Your task to perform on an android device: Go to accessibility settings Image 0: 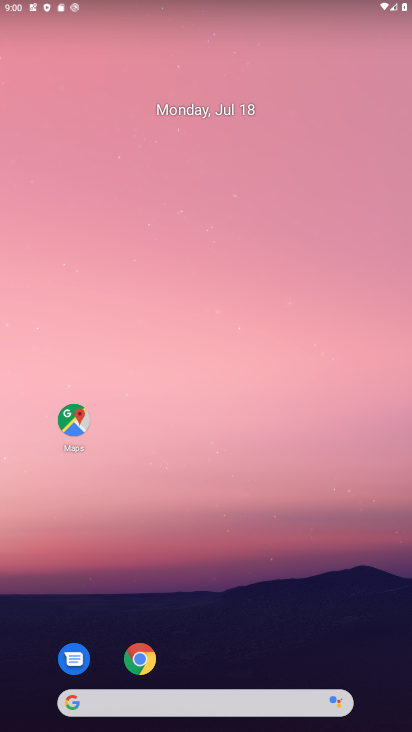
Step 0: drag from (199, 681) to (227, 166)
Your task to perform on an android device: Go to accessibility settings Image 1: 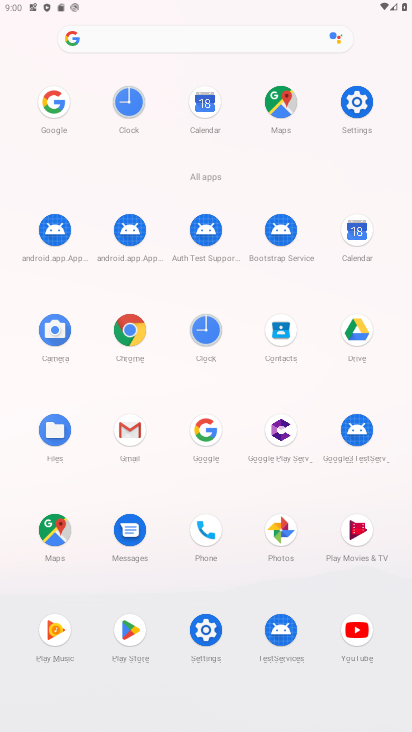
Step 1: click (355, 108)
Your task to perform on an android device: Go to accessibility settings Image 2: 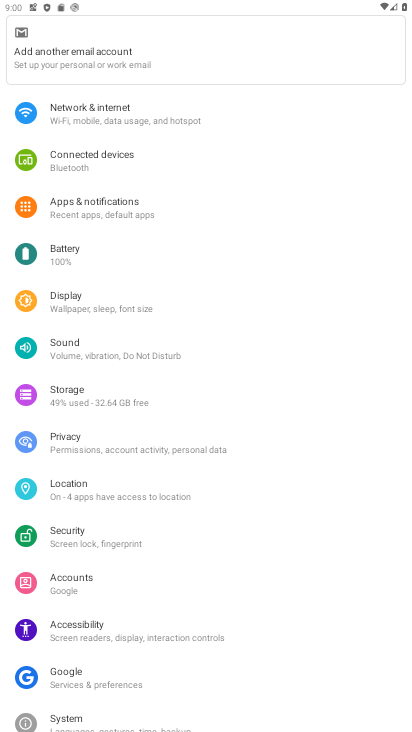
Step 2: click (109, 637)
Your task to perform on an android device: Go to accessibility settings Image 3: 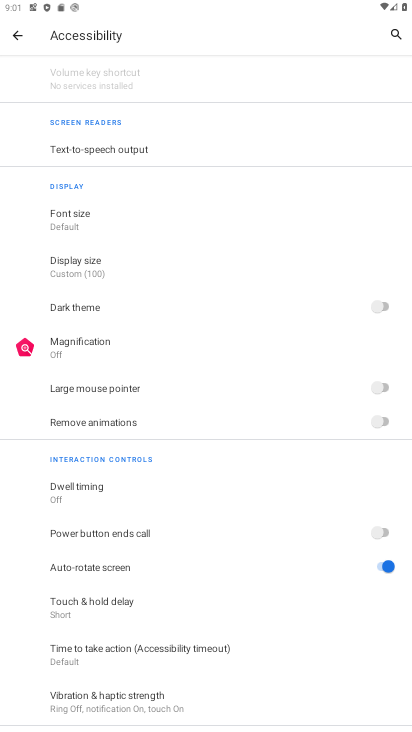
Step 3: task complete